Your task to perform on an android device: choose inbox layout in the gmail app Image 0: 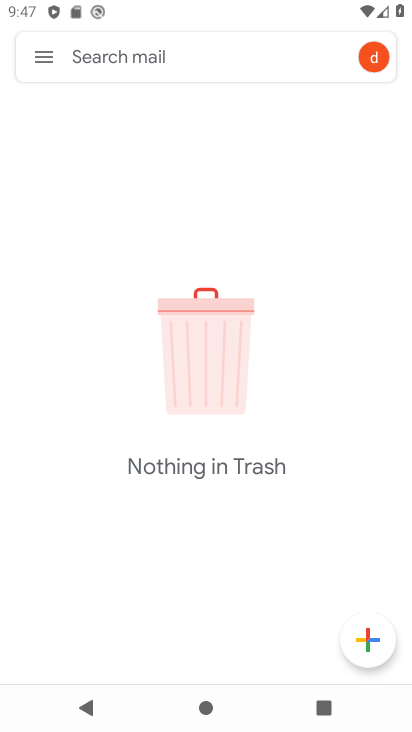
Step 0: press home button
Your task to perform on an android device: choose inbox layout in the gmail app Image 1: 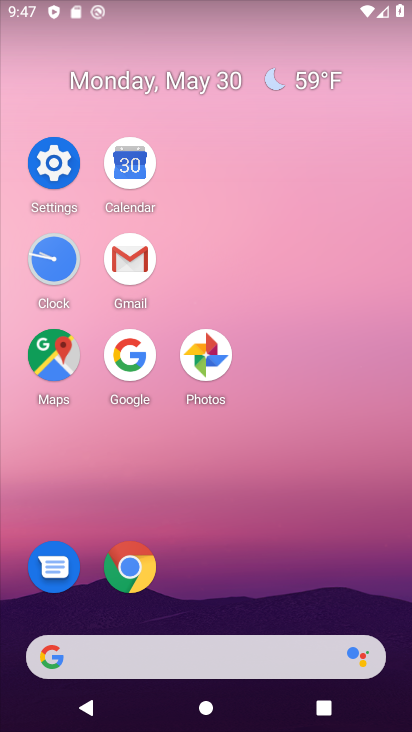
Step 1: click (126, 285)
Your task to perform on an android device: choose inbox layout in the gmail app Image 2: 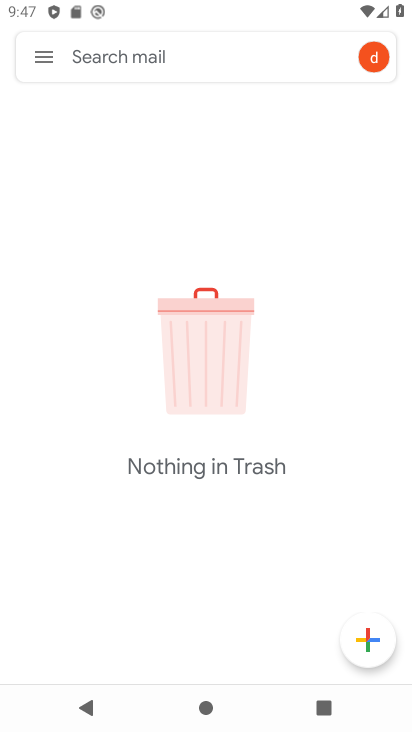
Step 2: click (60, 58)
Your task to perform on an android device: choose inbox layout in the gmail app Image 3: 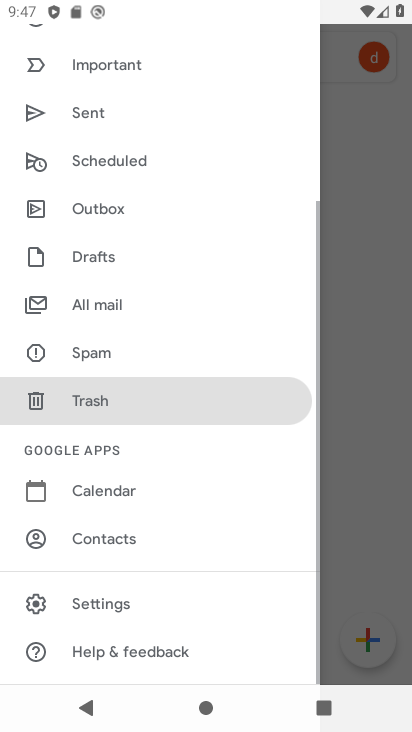
Step 3: click (174, 611)
Your task to perform on an android device: choose inbox layout in the gmail app Image 4: 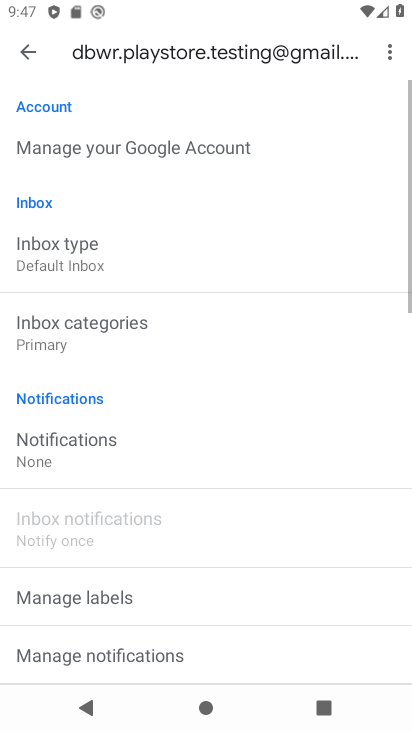
Step 4: click (159, 262)
Your task to perform on an android device: choose inbox layout in the gmail app Image 5: 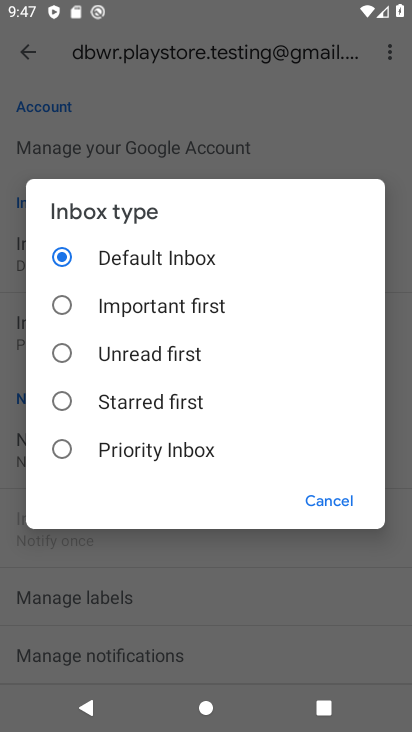
Step 5: task complete